Your task to perform on an android device: Find coffee shops on Maps Image 0: 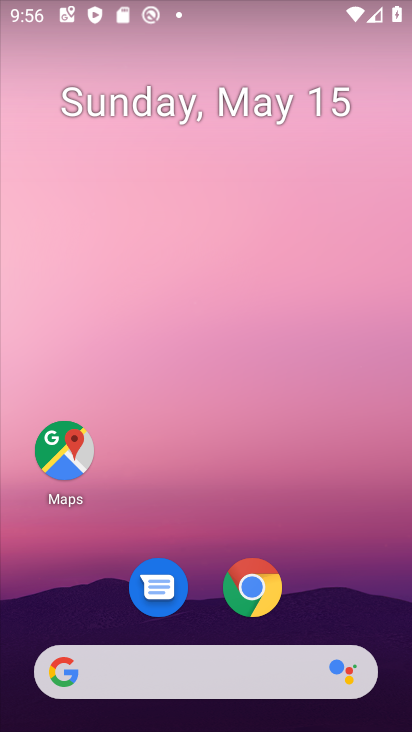
Step 0: drag from (400, 636) to (223, 45)
Your task to perform on an android device: Find coffee shops on Maps Image 1: 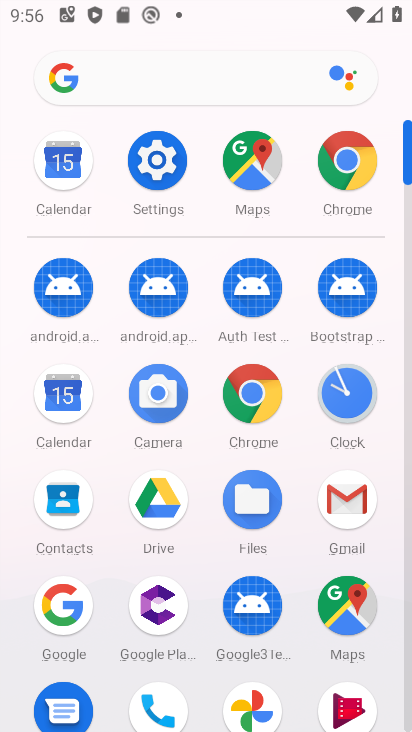
Step 1: click (348, 608)
Your task to perform on an android device: Find coffee shops on Maps Image 2: 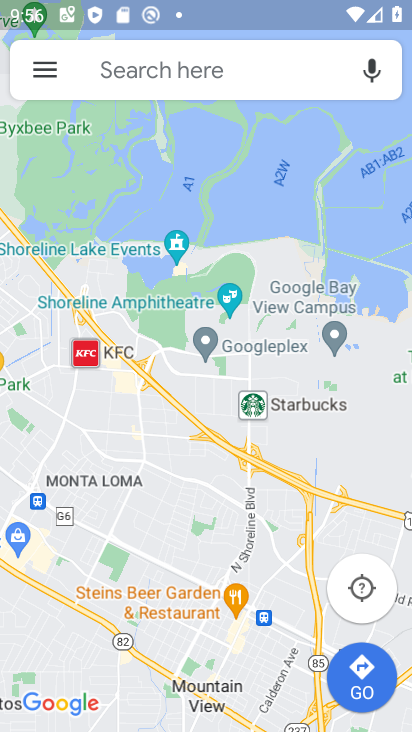
Step 2: click (148, 71)
Your task to perform on an android device: Find coffee shops on Maps Image 3: 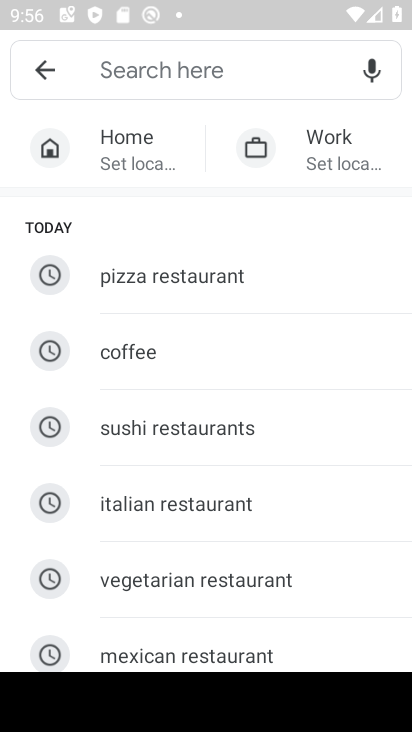
Step 3: click (149, 344)
Your task to perform on an android device: Find coffee shops on Maps Image 4: 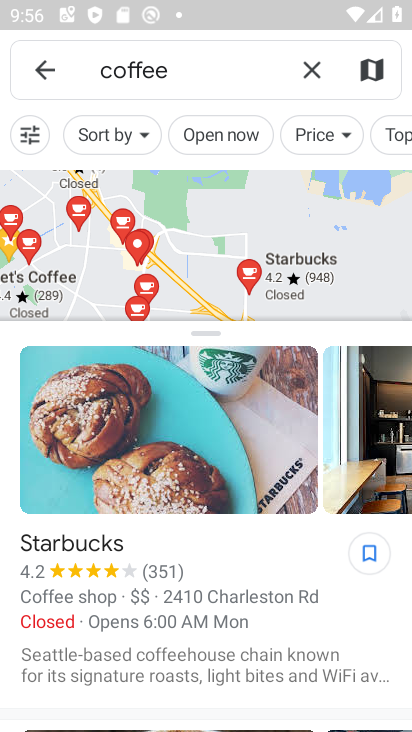
Step 4: task complete